Your task to perform on an android device: Open privacy settings Image 0: 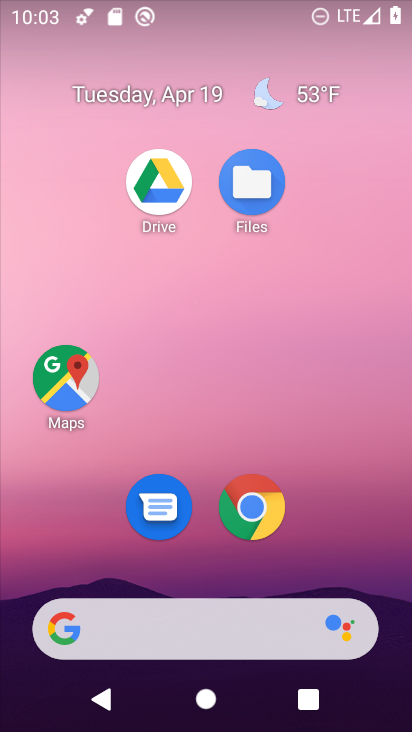
Step 0: click (254, 516)
Your task to perform on an android device: Open privacy settings Image 1: 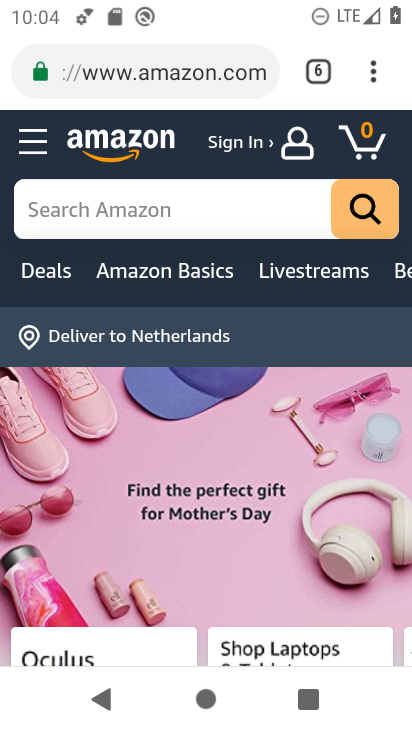
Step 1: drag from (368, 63) to (229, 510)
Your task to perform on an android device: Open privacy settings Image 2: 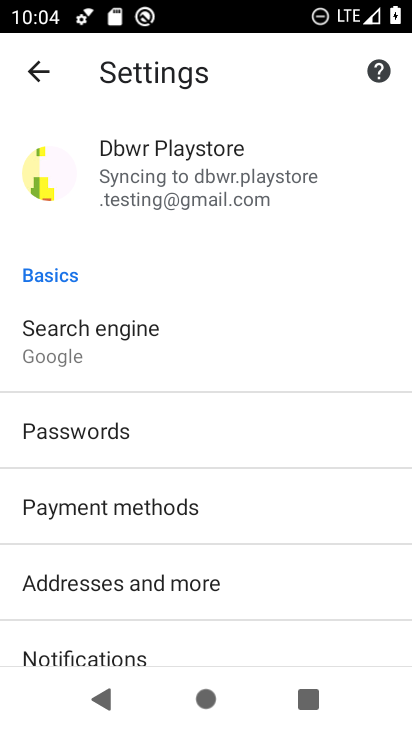
Step 2: drag from (254, 595) to (260, 187)
Your task to perform on an android device: Open privacy settings Image 3: 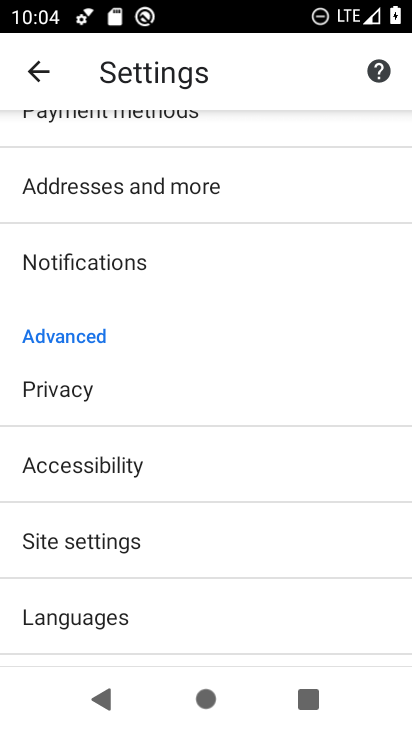
Step 3: click (101, 392)
Your task to perform on an android device: Open privacy settings Image 4: 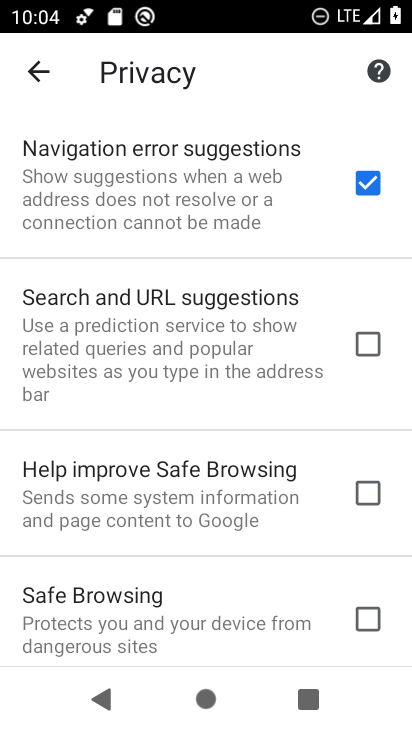
Step 4: task complete